Your task to perform on an android device: Open the calendar and show me this week's events? Image 0: 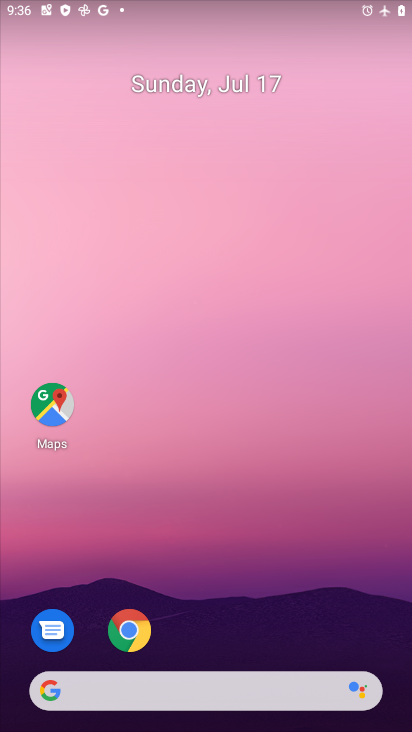
Step 0: drag from (182, 466) to (177, 23)
Your task to perform on an android device: Open the calendar and show me this week's events? Image 1: 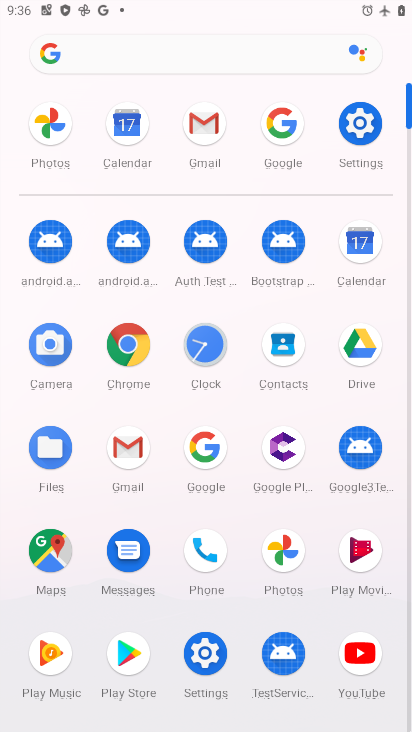
Step 1: click (365, 269)
Your task to perform on an android device: Open the calendar and show me this week's events? Image 2: 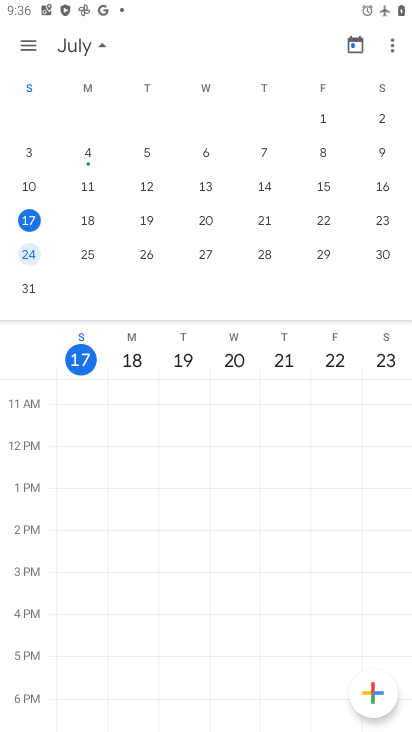
Step 2: click (36, 48)
Your task to perform on an android device: Open the calendar and show me this week's events? Image 3: 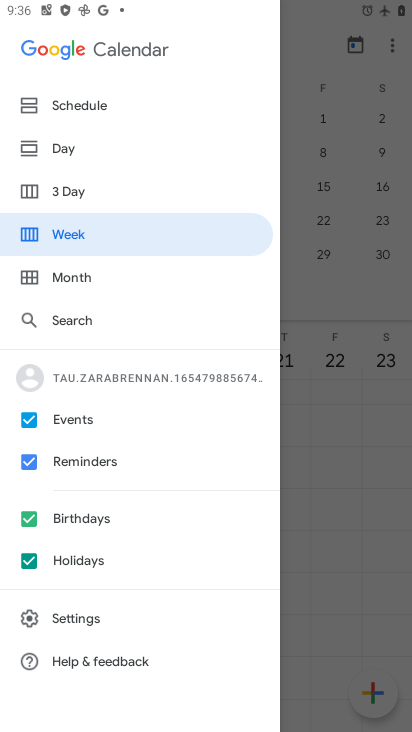
Step 3: click (87, 238)
Your task to perform on an android device: Open the calendar and show me this week's events? Image 4: 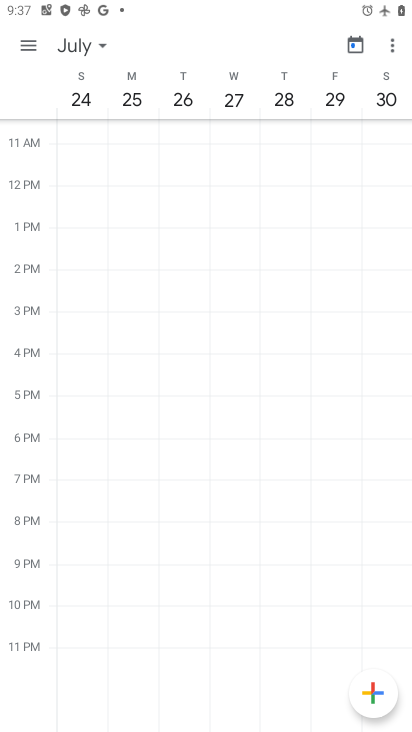
Step 4: click (91, 51)
Your task to perform on an android device: Open the calendar and show me this week's events? Image 5: 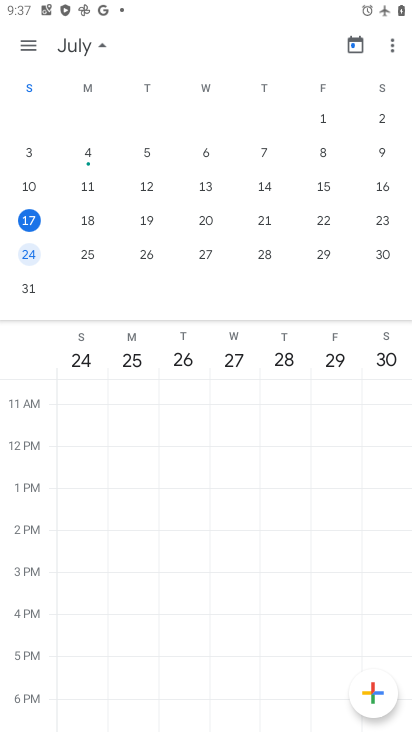
Step 5: click (28, 219)
Your task to perform on an android device: Open the calendar and show me this week's events? Image 6: 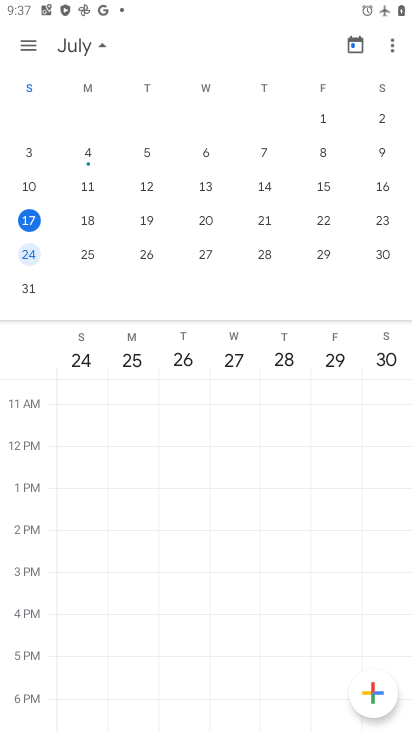
Step 6: click (28, 219)
Your task to perform on an android device: Open the calendar and show me this week's events? Image 7: 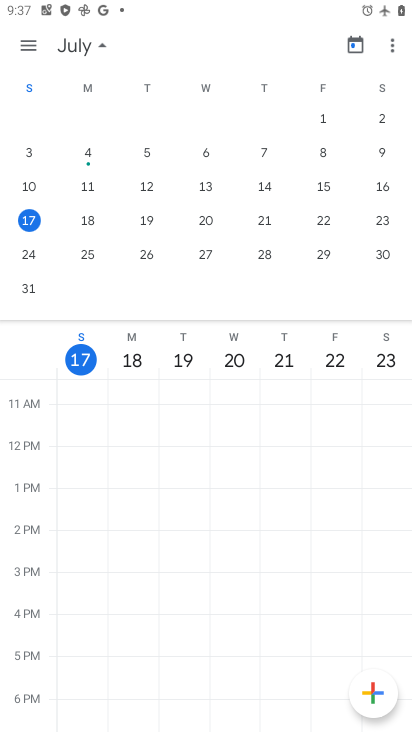
Step 7: task complete